Your task to perform on an android device: change alarm snooze length Image 0: 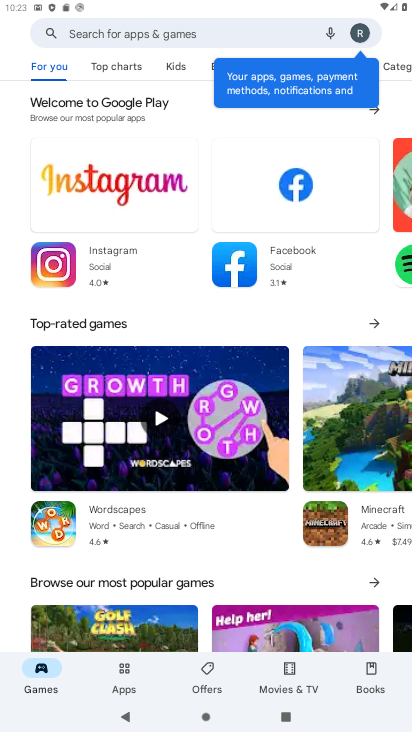
Step 0: press home button
Your task to perform on an android device: change alarm snooze length Image 1: 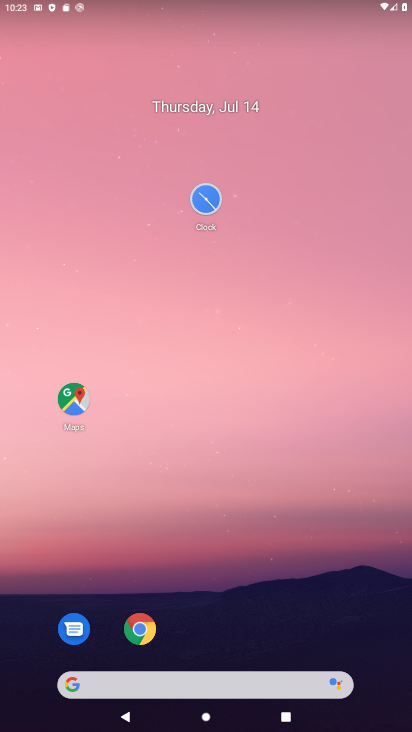
Step 1: drag from (193, 578) to (188, 193)
Your task to perform on an android device: change alarm snooze length Image 2: 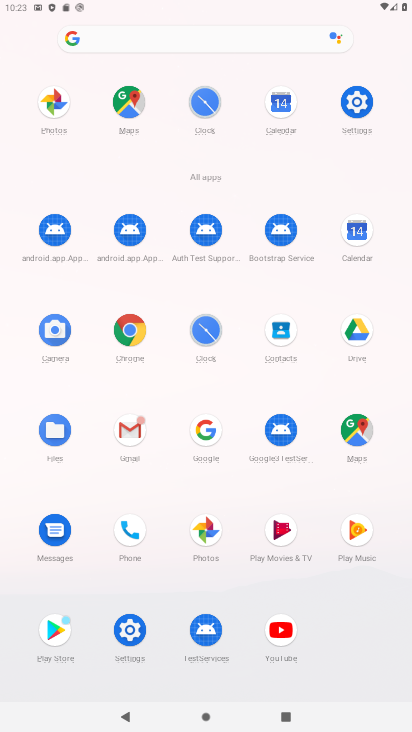
Step 2: click (211, 97)
Your task to perform on an android device: change alarm snooze length Image 3: 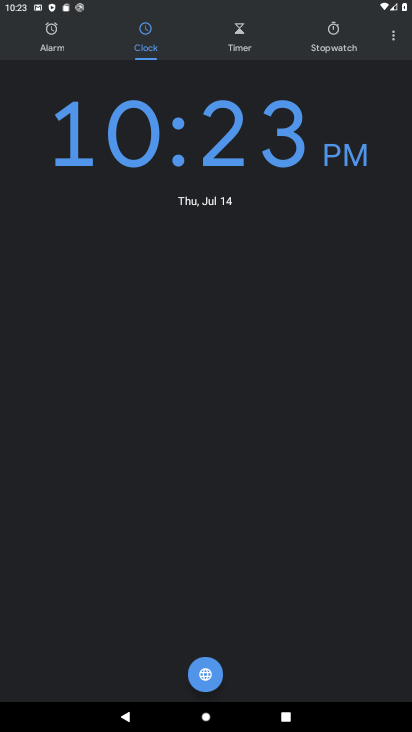
Step 3: click (390, 40)
Your task to perform on an android device: change alarm snooze length Image 4: 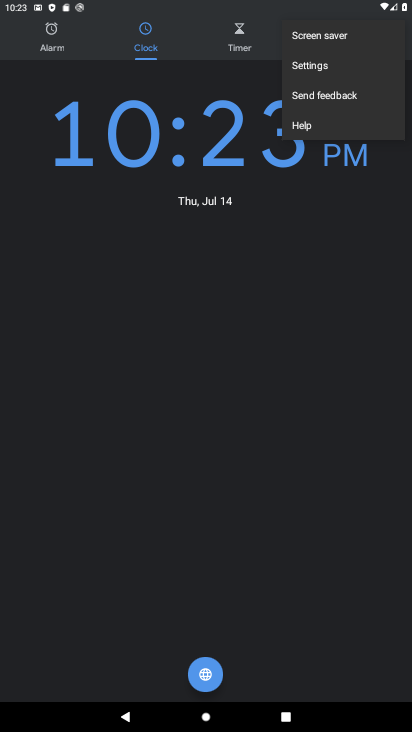
Step 4: click (334, 67)
Your task to perform on an android device: change alarm snooze length Image 5: 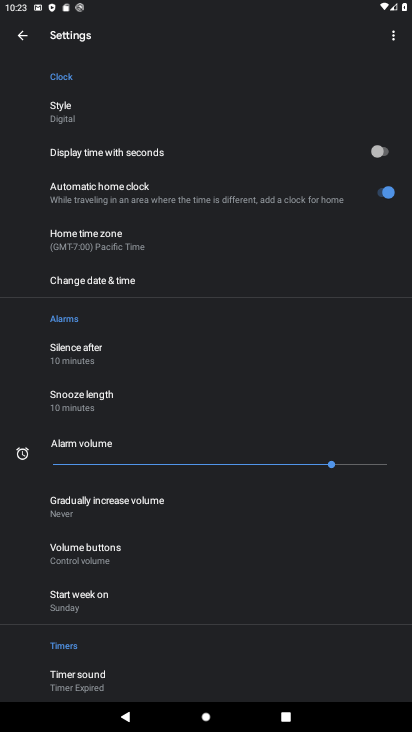
Step 5: click (146, 393)
Your task to perform on an android device: change alarm snooze length Image 6: 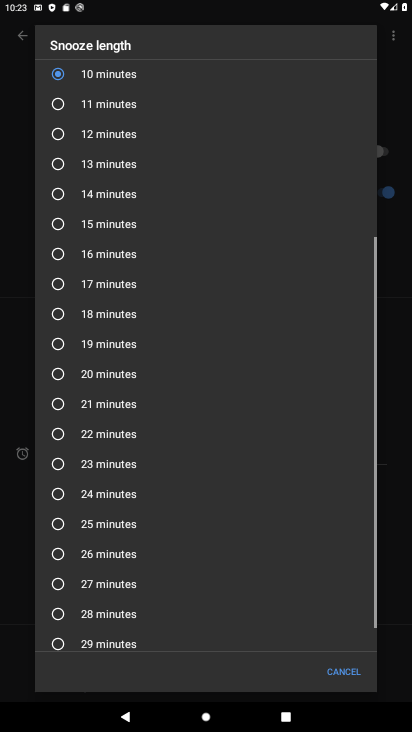
Step 6: click (72, 103)
Your task to perform on an android device: change alarm snooze length Image 7: 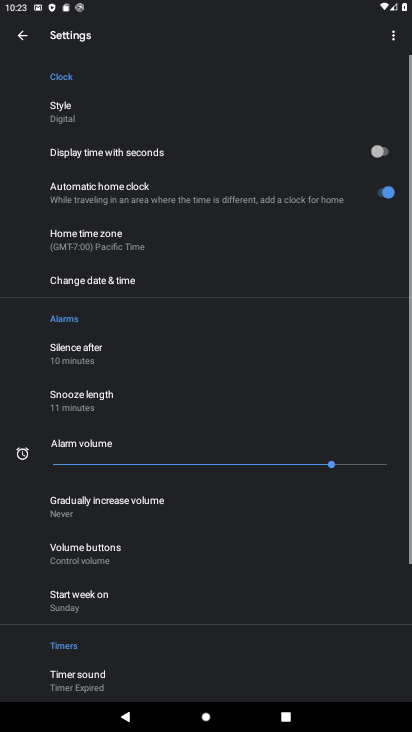
Step 7: task complete